Your task to perform on an android device: turn on improve location accuracy Image 0: 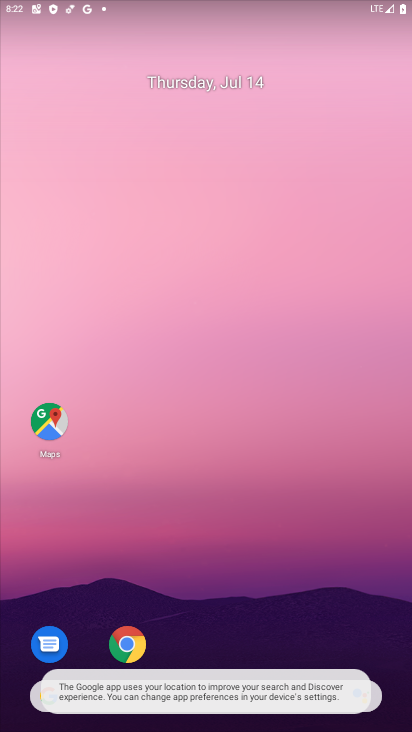
Step 0: drag from (216, 682) to (256, 153)
Your task to perform on an android device: turn on improve location accuracy Image 1: 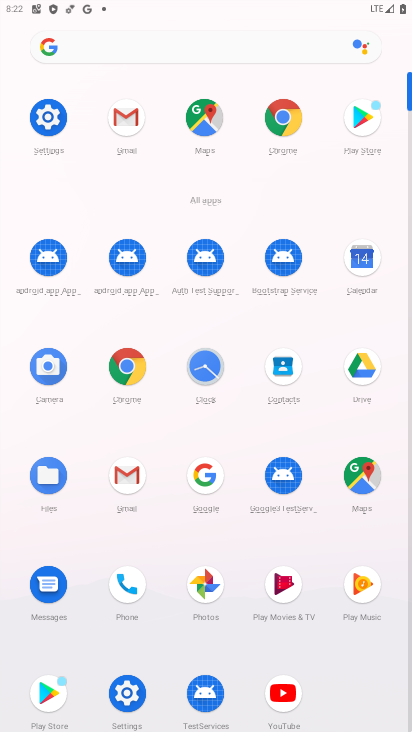
Step 1: click (146, 689)
Your task to perform on an android device: turn on improve location accuracy Image 2: 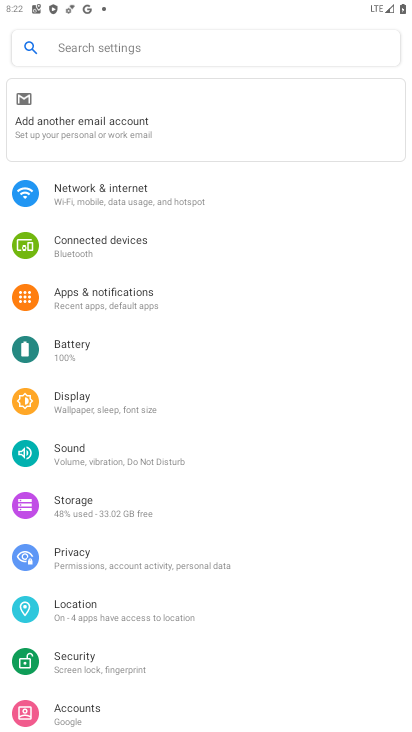
Step 2: click (140, 613)
Your task to perform on an android device: turn on improve location accuracy Image 3: 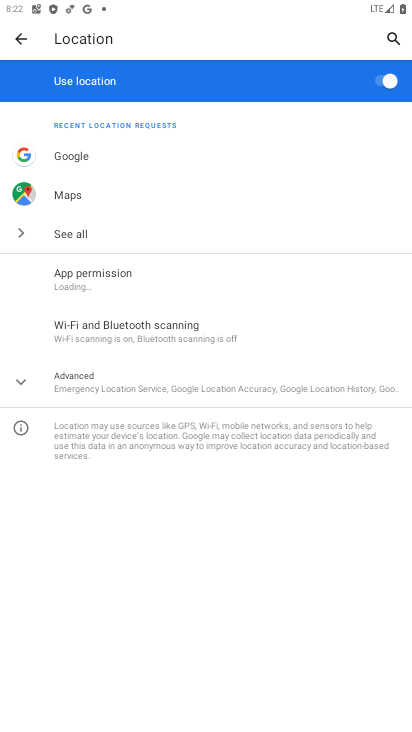
Step 3: click (196, 376)
Your task to perform on an android device: turn on improve location accuracy Image 4: 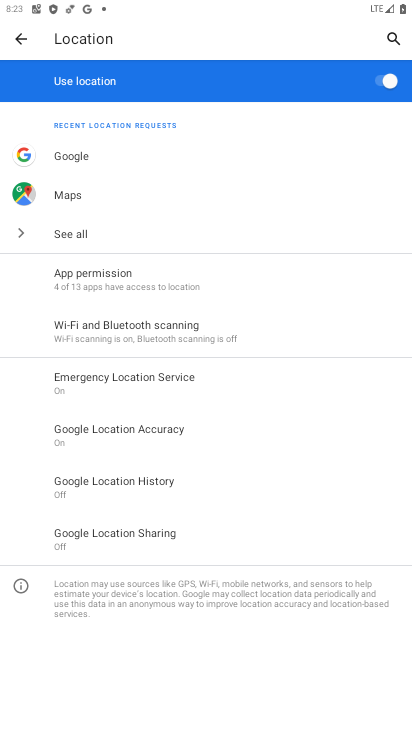
Step 4: click (171, 443)
Your task to perform on an android device: turn on improve location accuracy Image 5: 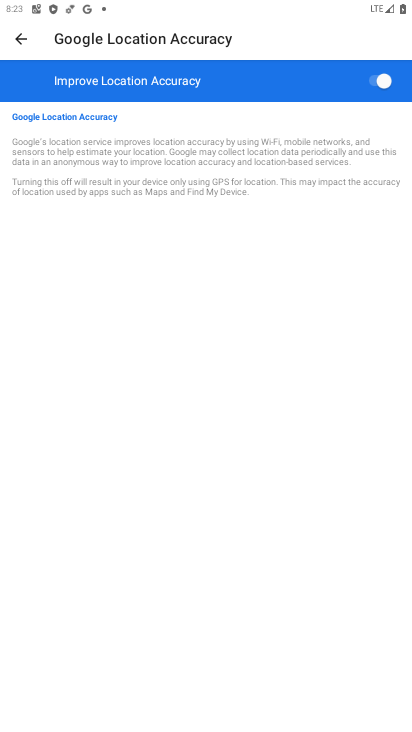
Step 5: task complete